Your task to perform on an android device: Is it going to rain today? Image 0: 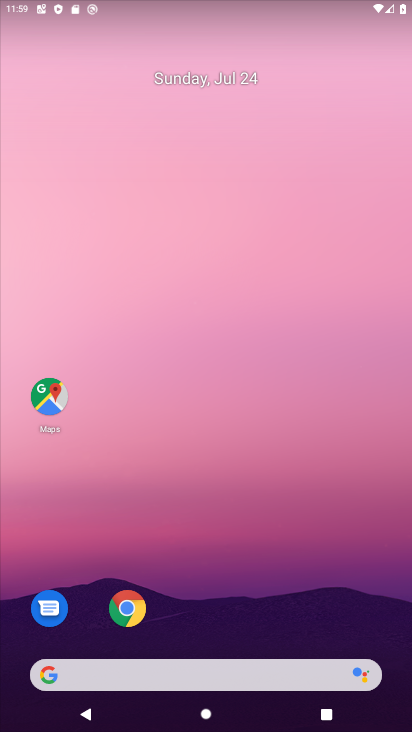
Step 0: click (122, 681)
Your task to perform on an android device: Is it going to rain today? Image 1: 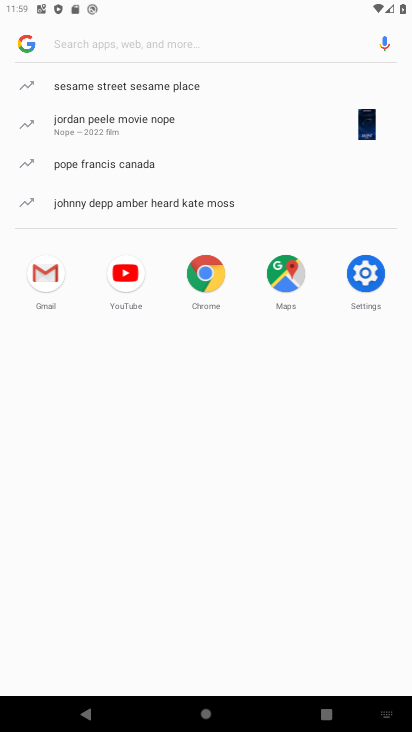
Step 1: click (71, 38)
Your task to perform on an android device: Is it going to rain today? Image 2: 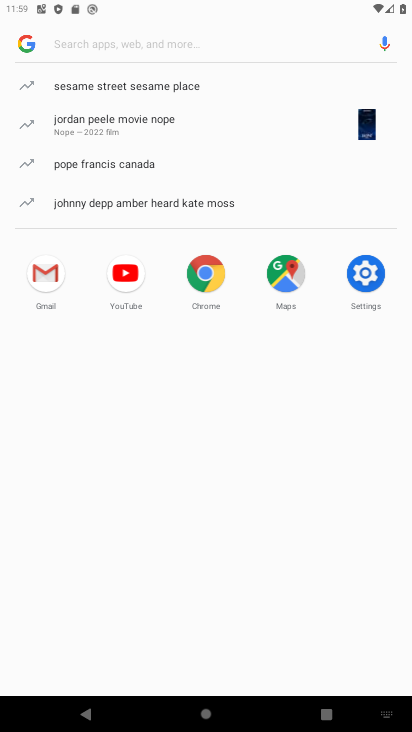
Step 2: type "weather today"
Your task to perform on an android device: Is it going to rain today? Image 3: 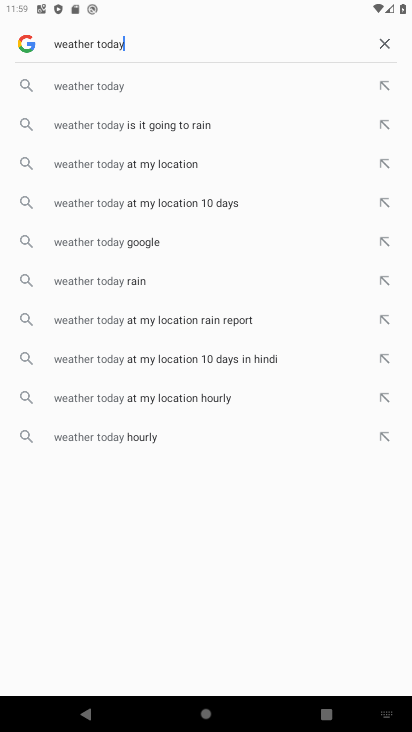
Step 3: click (73, 82)
Your task to perform on an android device: Is it going to rain today? Image 4: 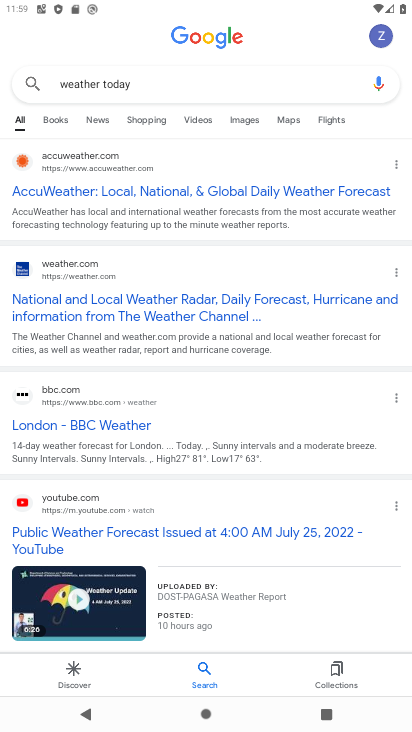
Step 4: click (72, 195)
Your task to perform on an android device: Is it going to rain today? Image 5: 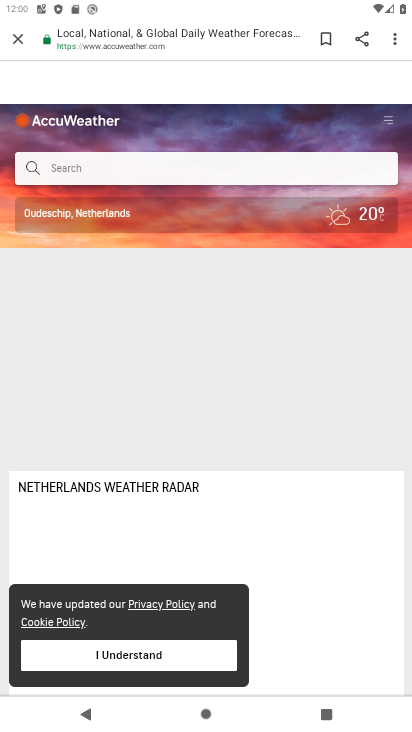
Step 5: task complete